Your task to perform on an android device: toggle priority inbox in the gmail app Image 0: 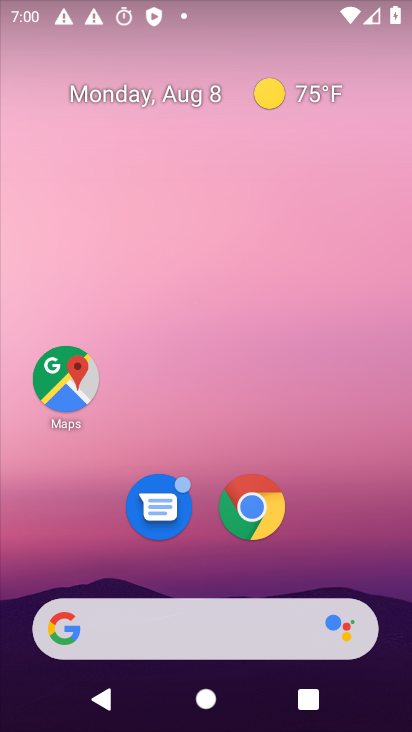
Step 0: drag from (284, 640) to (290, 264)
Your task to perform on an android device: toggle priority inbox in the gmail app Image 1: 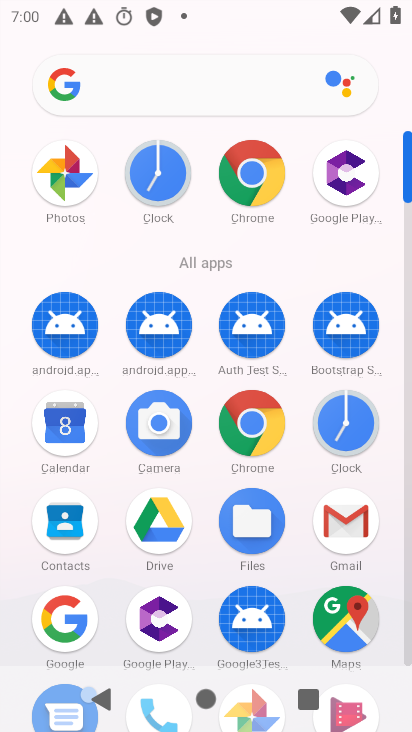
Step 1: click (347, 532)
Your task to perform on an android device: toggle priority inbox in the gmail app Image 2: 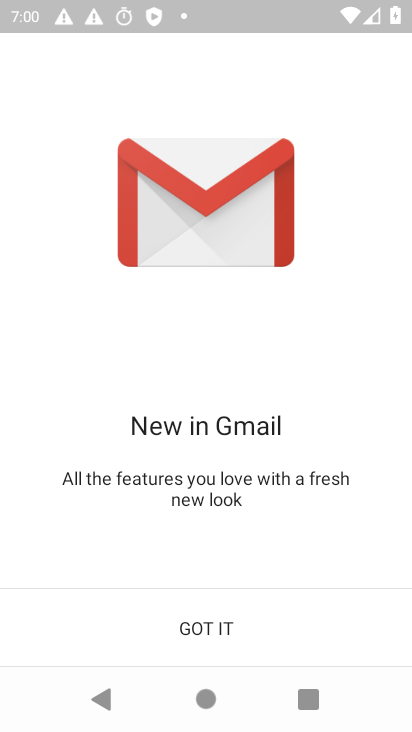
Step 2: click (220, 623)
Your task to perform on an android device: toggle priority inbox in the gmail app Image 3: 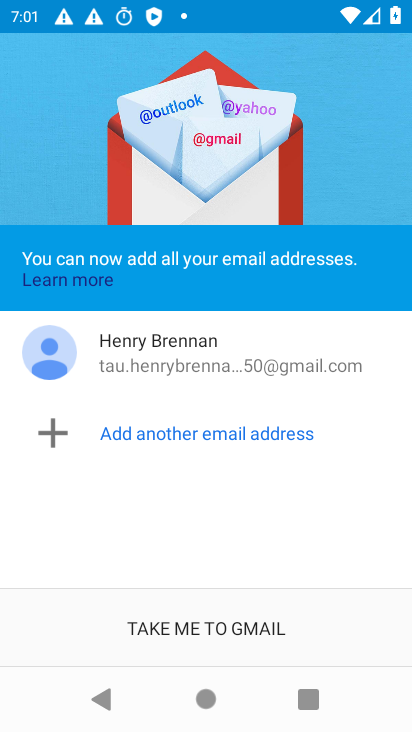
Step 3: click (220, 623)
Your task to perform on an android device: toggle priority inbox in the gmail app Image 4: 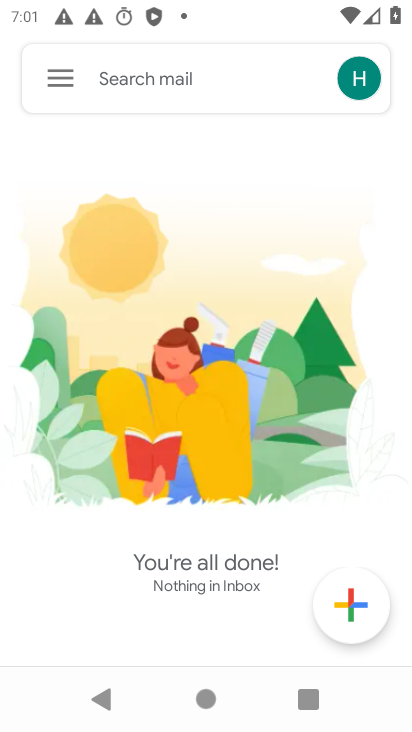
Step 4: click (57, 72)
Your task to perform on an android device: toggle priority inbox in the gmail app Image 5: 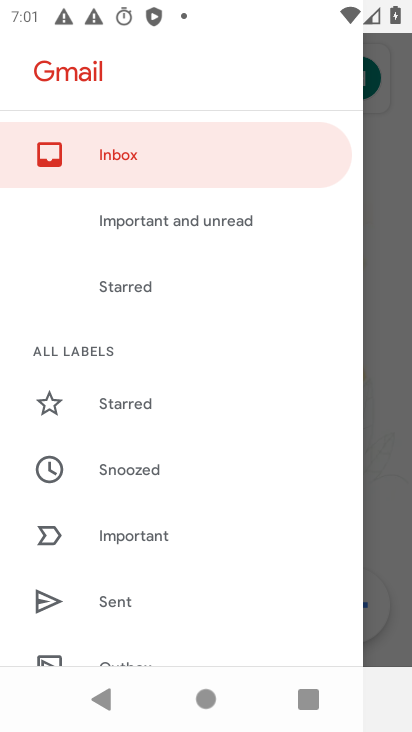
Step 5: drag from (155, 540) to (210, 333)
Your task to perform on an android device: toggle priority inbox in the gmail app Image 6: 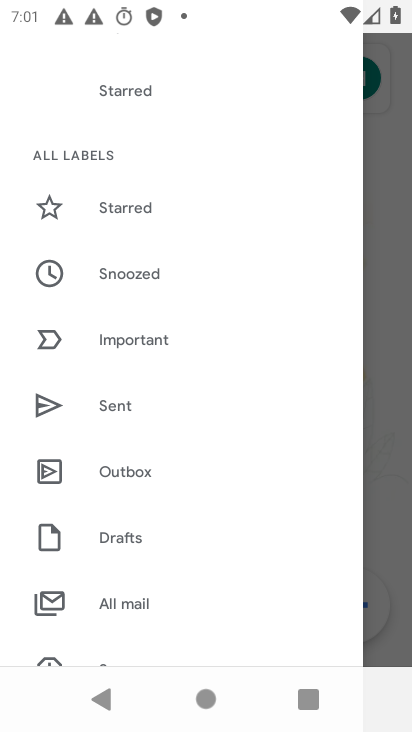
Step 6: drag from (210, 529) to (255, 342)
Your task to perform on an android device: toggle priority inbox in the gmail app Image 7: 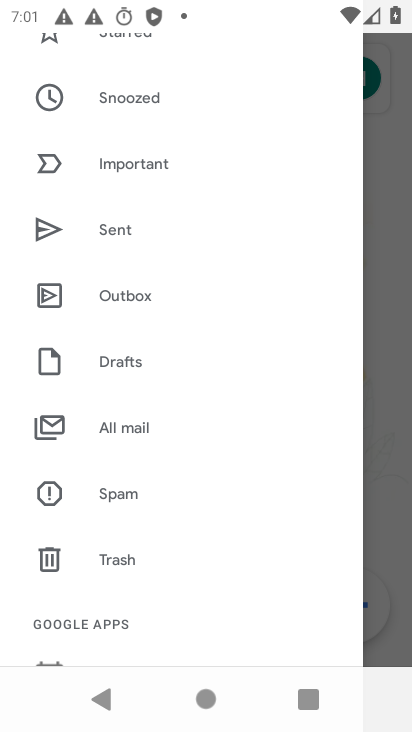
Step 7: drag from (151, 572) to (186, 443)
Your task to perform on an android device: toggle priority inbox in the gmail app Image 8: 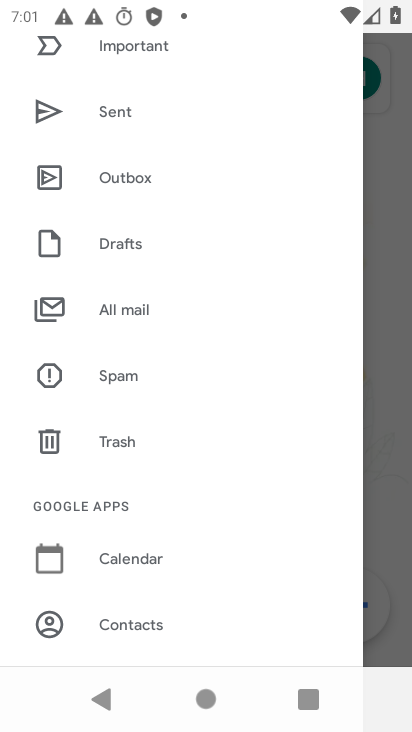
Step 8: drag from (110, 626) to (149, 490)
Your task to perform on an android device: toggle priority inbox in the gmail app Image 9: 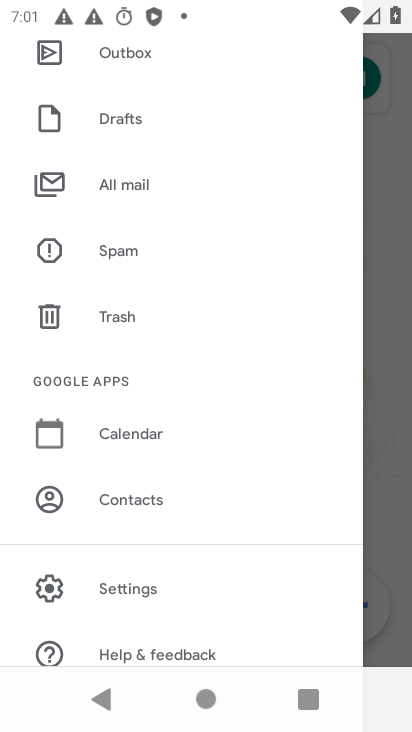
Step 9: click (147, 595)
Your task to perform on an android device: toggle priority inbox in the gmail app Image 10: 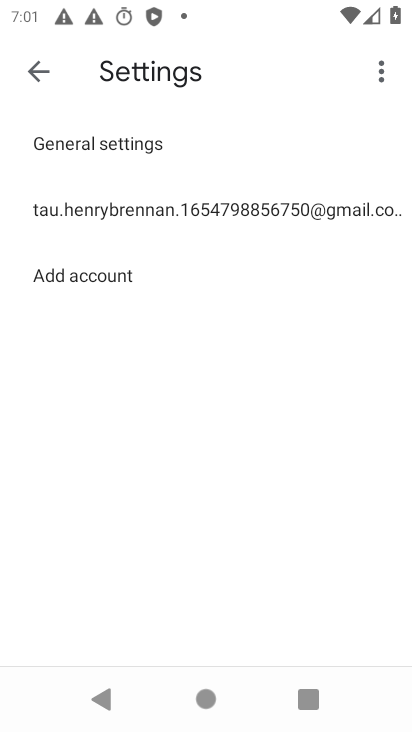
Step 10: click (139, 212)
Your task to perform on an android device: toggle priority inbox in the gmail app Image 11: 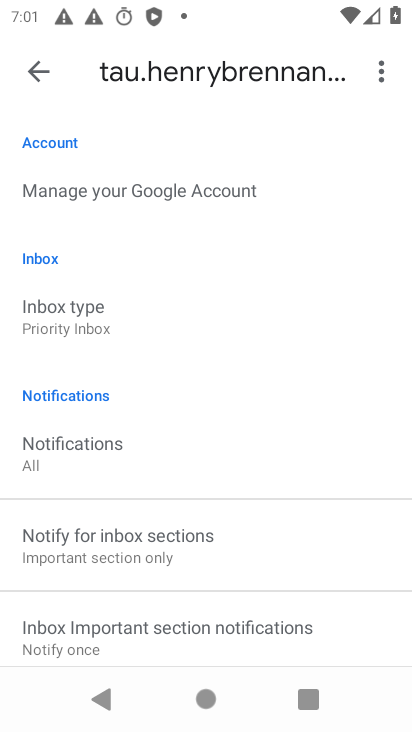
Step 11: click (77, 310)
Your task to perform on an android device: toggle priority inbox in the gmail app Image 12: 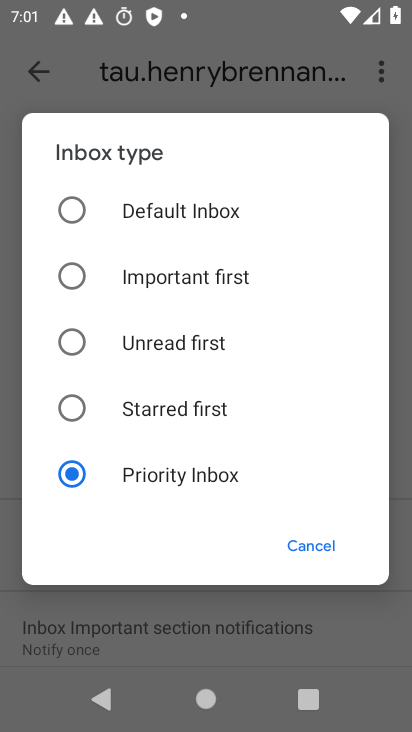
Step 12: task complete